Your task to perform on an android device: Open Google Maps Image 0: 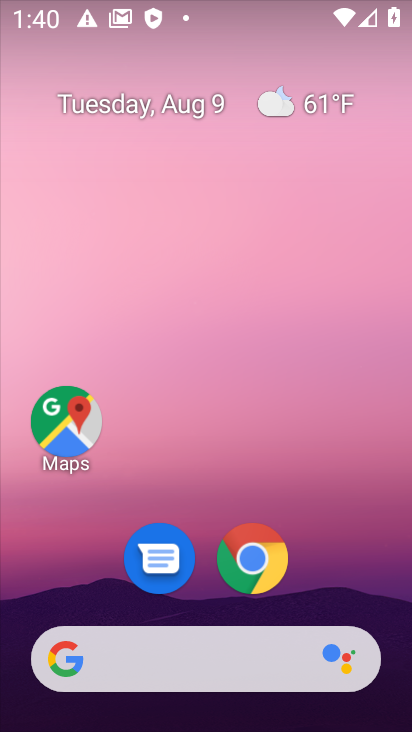
Step 0: drag from (220, 334) to (322, 21)
Your task to perform on an android device: Open Google Maps Image 1: 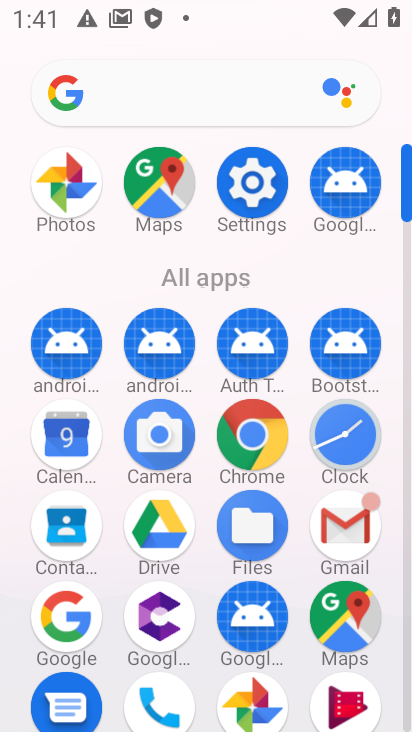
Step 1: drag from (210, 640) to (198, 410)
Your task to perform on an android device: Open Google Maps Image 2: 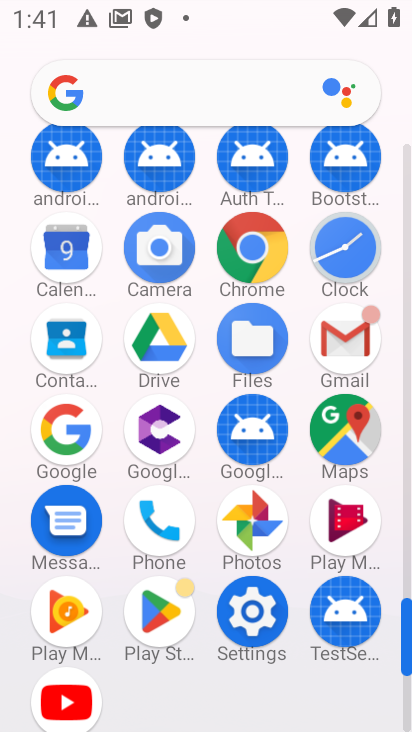
Step 2: click (344, 443)
Your task to perform on an android device: Open Google Maps Image 3: 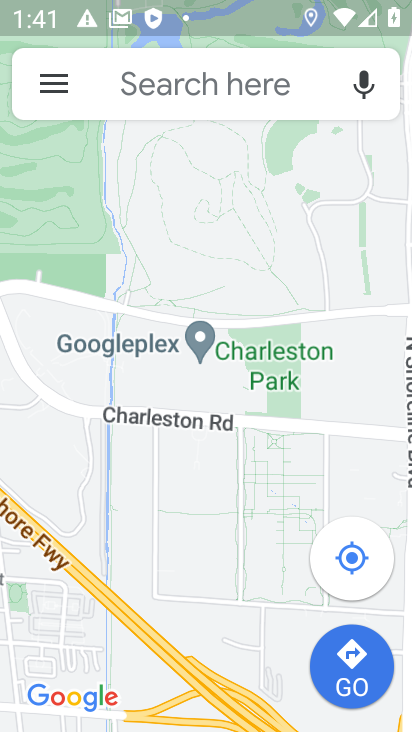
Step 3: task complete